Your task to perform on an android device: Go to location settings Image 0: 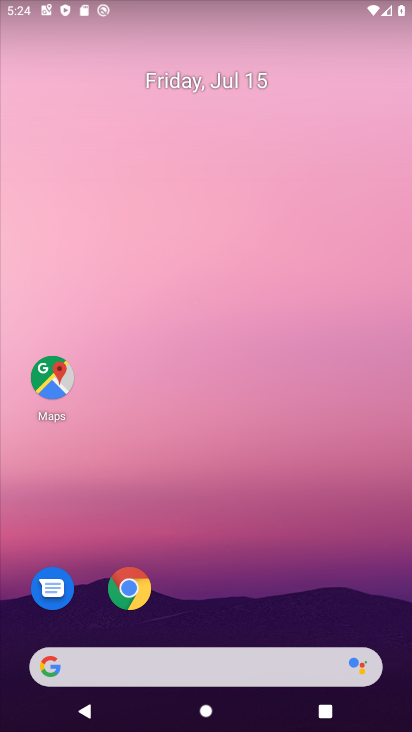
Step 0: drag from (173, 614) to (217, 81)
Your task to perform on an android device: Go to location settings Image 1: 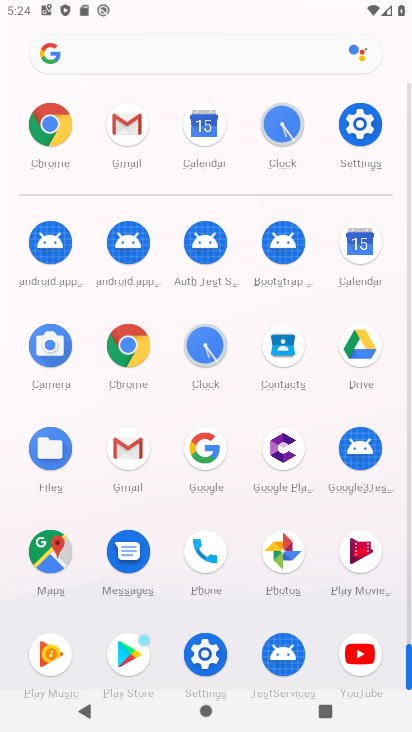
Step 1: click (372, 117)
Your task to perform on an android device: Go to location settings Image 2: 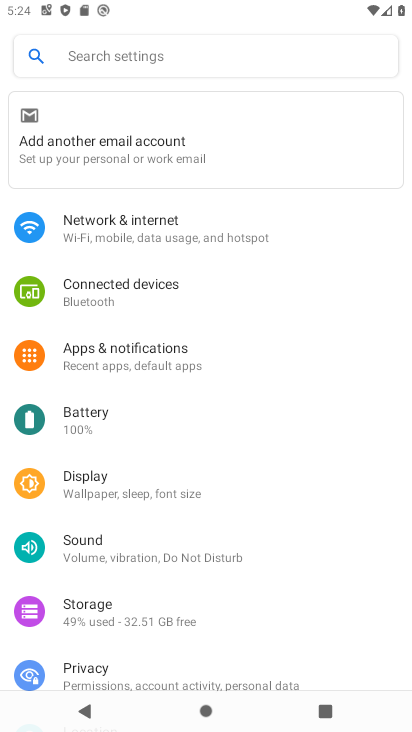
Step 2: drag from (159, 656) to (140, 144)
Your task to perform on an android device: Go to location settings Image 3: 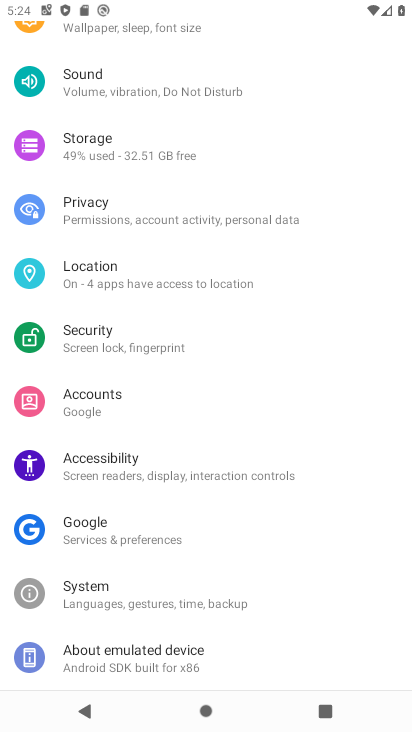
Step 3: click (110, 276)
Your task to perform on an android device: Go to location settings Image 4: 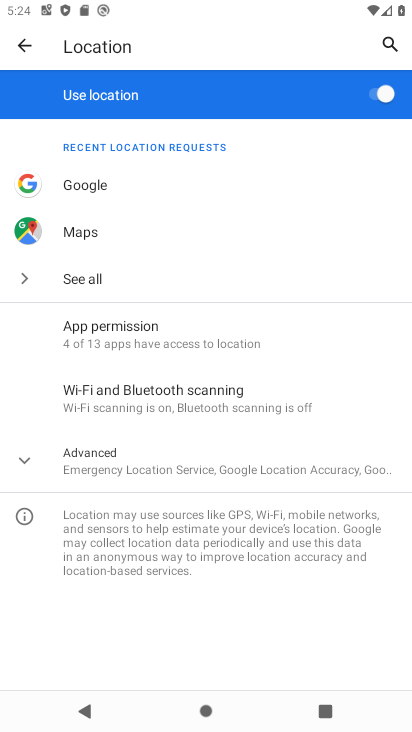
Step 4: task complete